Your task to perform on an android device: turn off location Image 0: 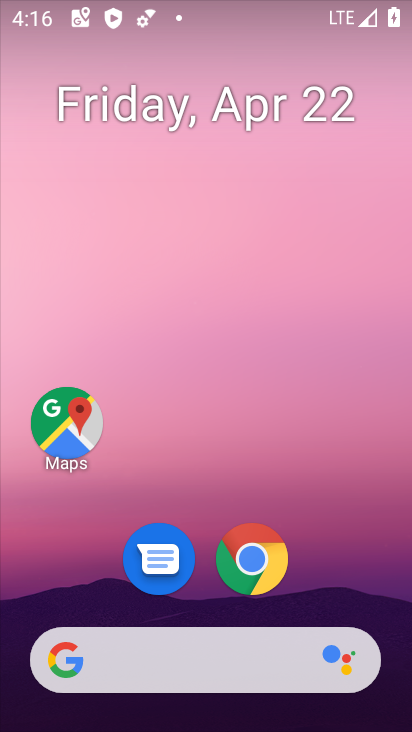
Step 0: drag from (208, 498) to (220, 15)
Your task to perform on an android device: turn off location Image 1: 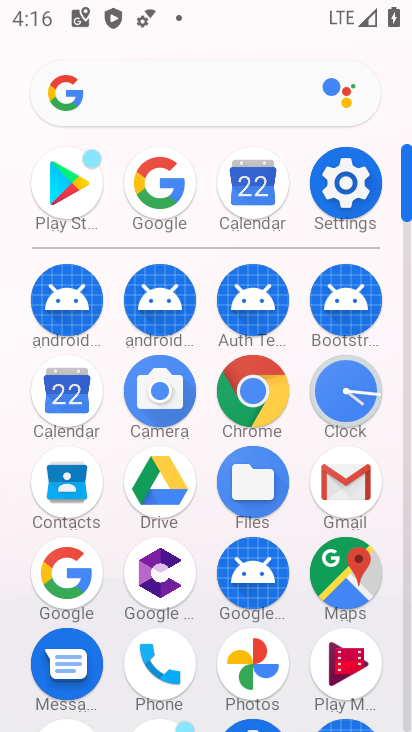
Step 1: click (343, 191)
Your task to perform on an android device: turn off location Image 2: 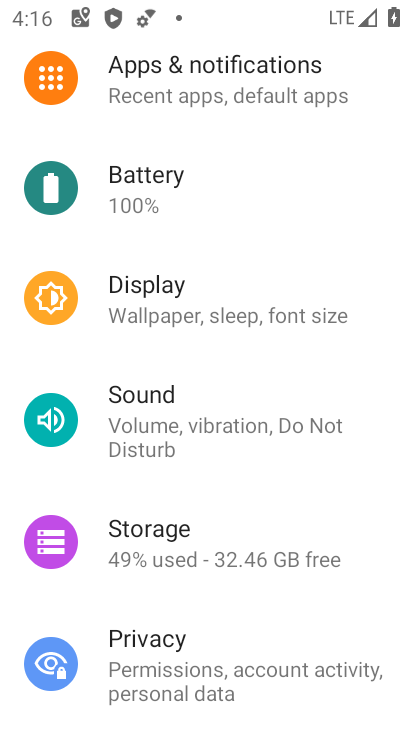
Step 2: drag from (239, 619) to (209, 181)
Your task to perform on an android device: turn off location Image 3: 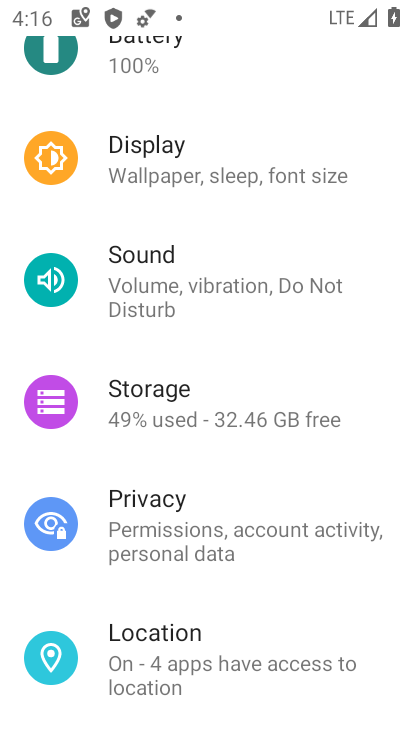
Step 3: click (138, 655)
Your task to perform on an android device: turn off location Image 4: 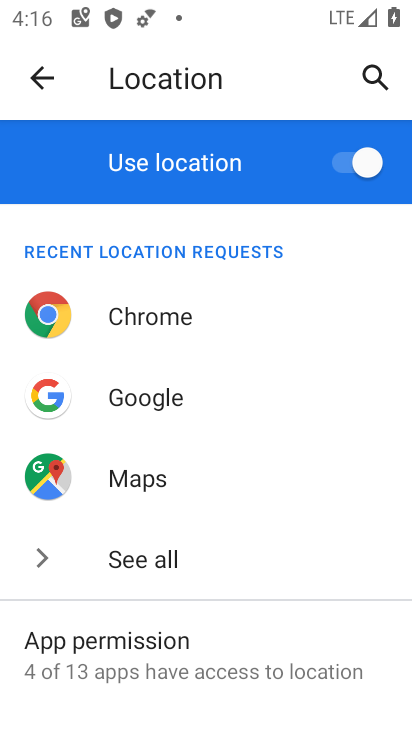
Step 4: click (361, 164)
Your task to perform on an android device: turn off location Image 5: 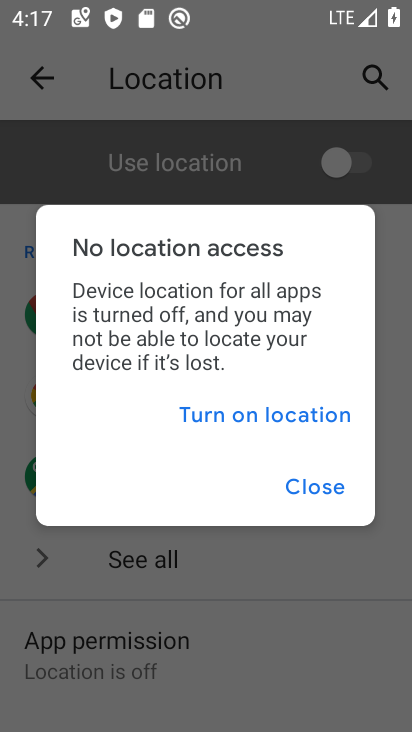
Step 5: task complete